Your task to perform on an android device: Search for Italian restaurants on Maps Image 0: 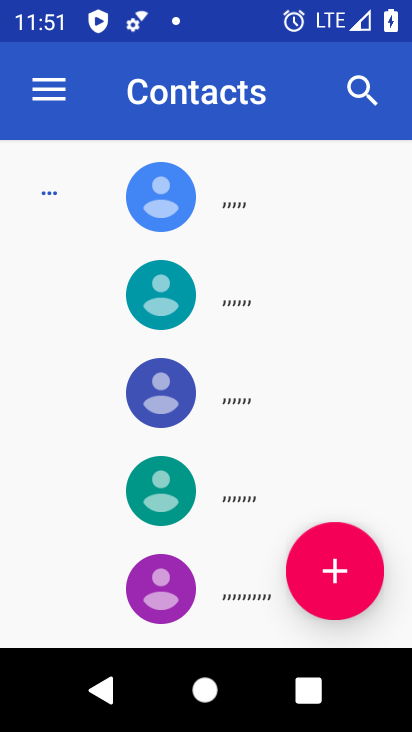
Step 0: press home button
Your task to perform on an android device: Search for Italian restaurants on Maps Image 1: 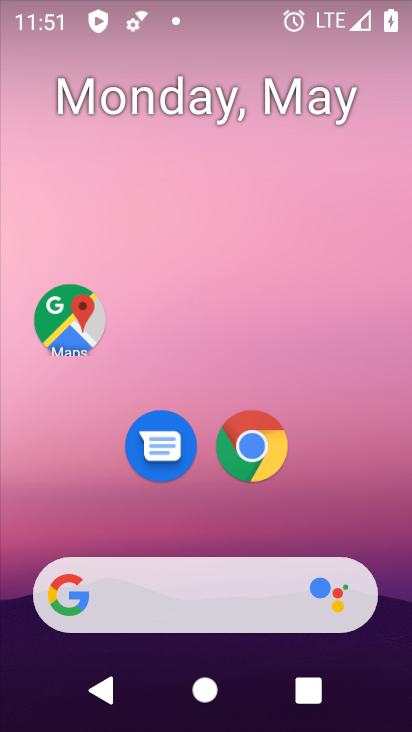
Step 1: click (69, 318)
Your task to perform on an android device: Search for Italian restaurants on Maps Image 2: 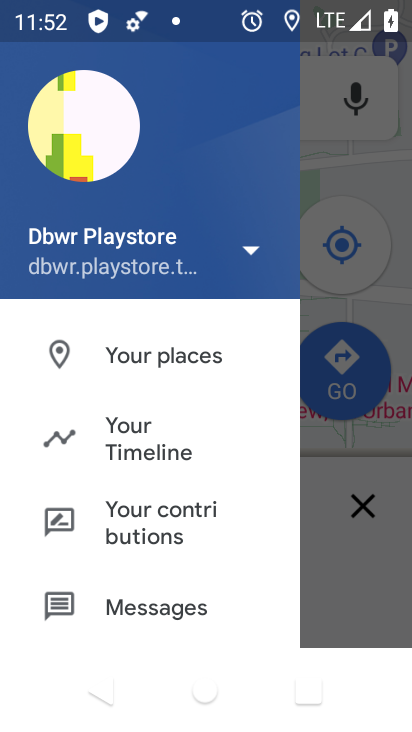
Step 2: click (322, 527)
Your task to perform on an android device: Search for Italian restaurants on Maps Image 3: 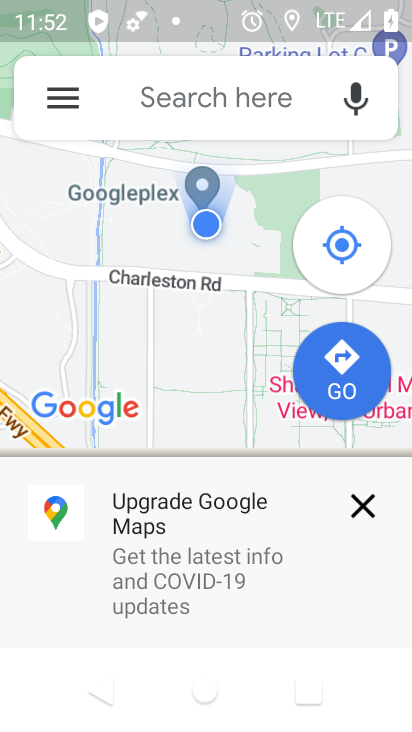
Step 3: click (178, 111)
Your task to perform on an android device: Search for Italian restaurants on Maps Image 4: 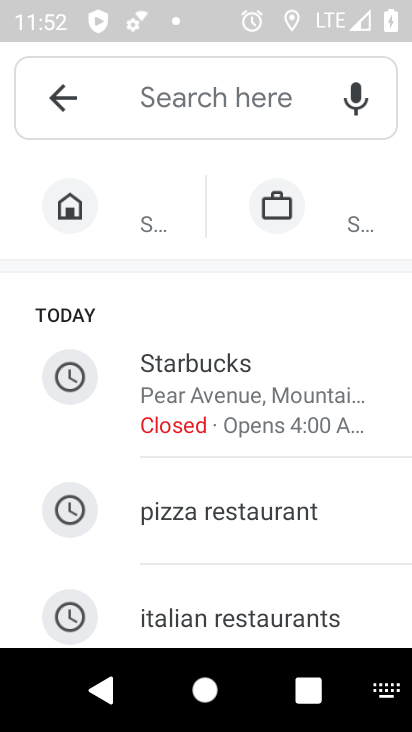
Step 4: click (222, 615)
Your task to perform on an android device: Search for Italian restaurants on Maps Image 5: 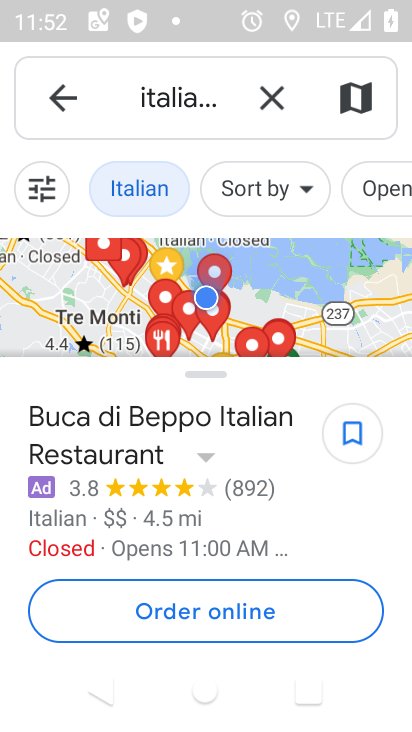
Step 5: task complete